Your task to perform on an android device: turn on location history Image 0: 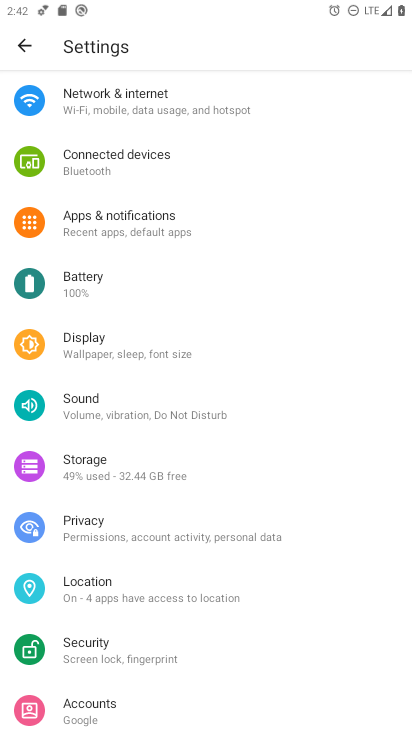
Step 0: click (94, 586)
Your task to perform on an android device: turn on location history Image 1: 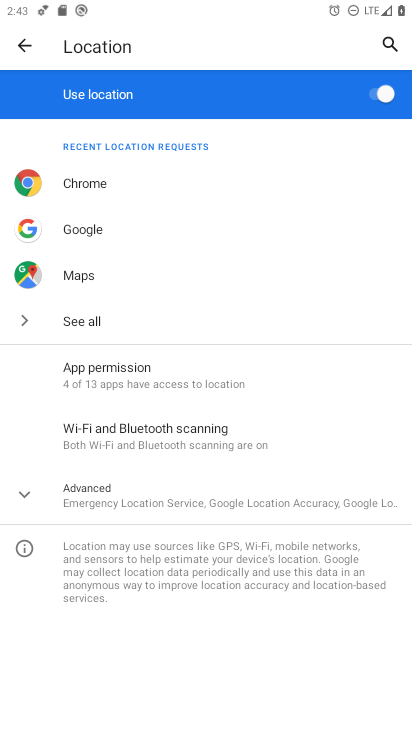
Step 1: click (20, 493)
Your task to perform on an android device: turn on location history Image 2: 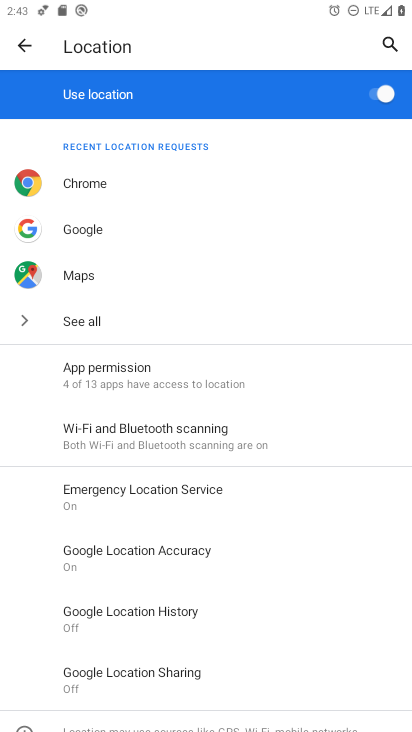
Step 2: click (115, 608)
Your task to perform on an android device: turn on location history Image 3: 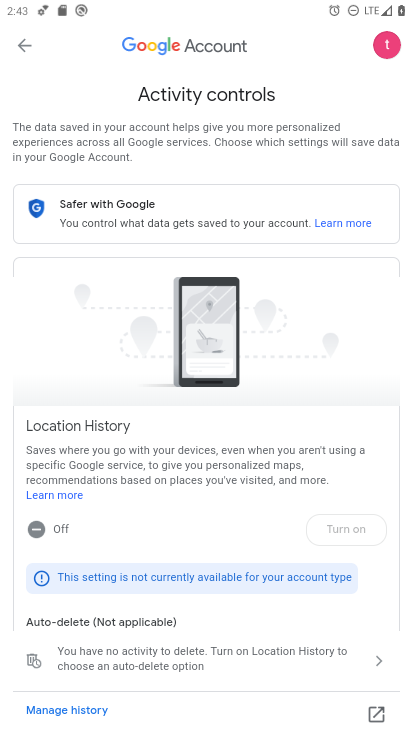
Step 3: task complete